Your task to perform on an android device: open device folders in google photos Image 0: 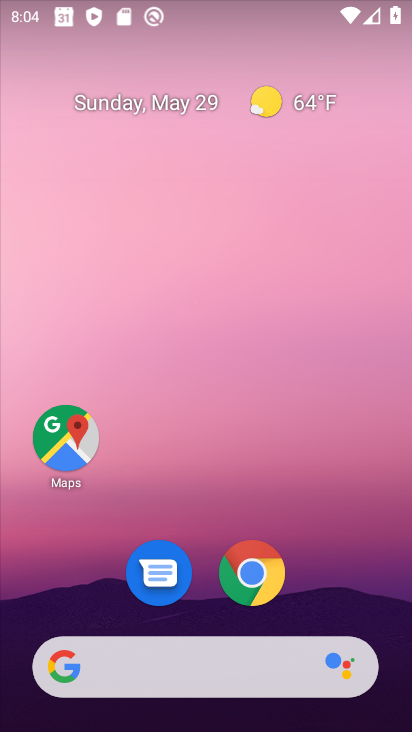
Step 0: drag from (92, 605) to (169, 233)
Your task to perform on an android device: open device folders in google photos Image 1: 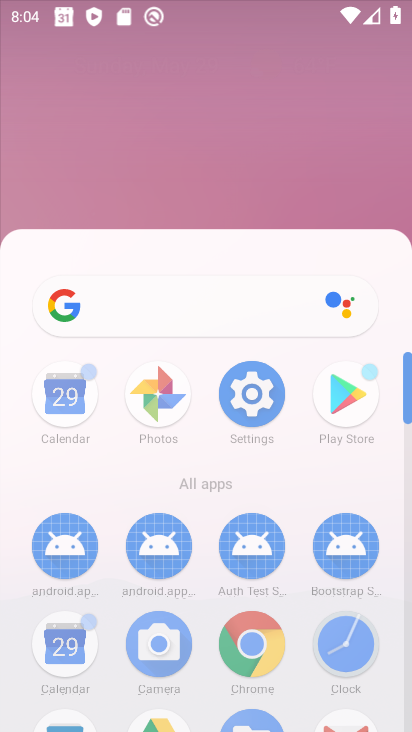
Step 1: click (161, 233)
Your task to perform on an android device: open device folders in google photos Image 2: 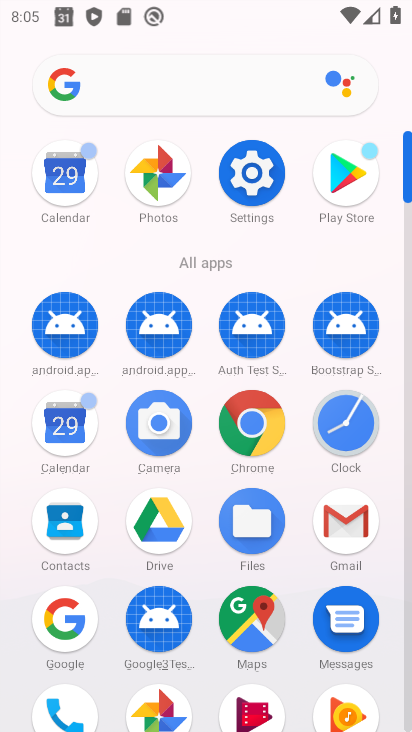
Step 2: drag from (198, 670) to (239, 441)
Your task to perform on an android device: open device folders in google photos Image 3: 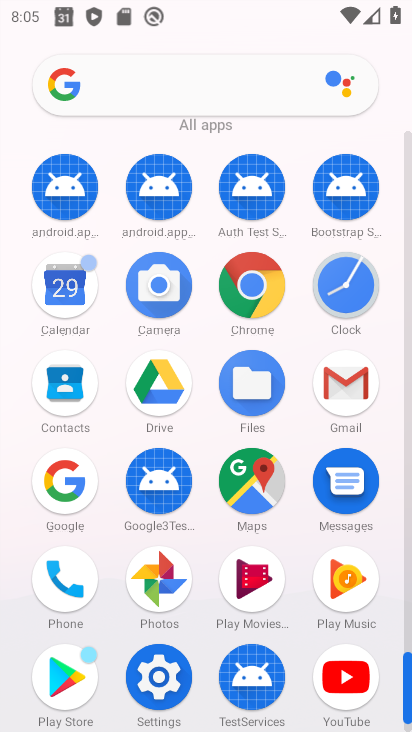
Step 3: click (166, 595)
Your task to perform on an android device: open device folders in google photos Image 4: 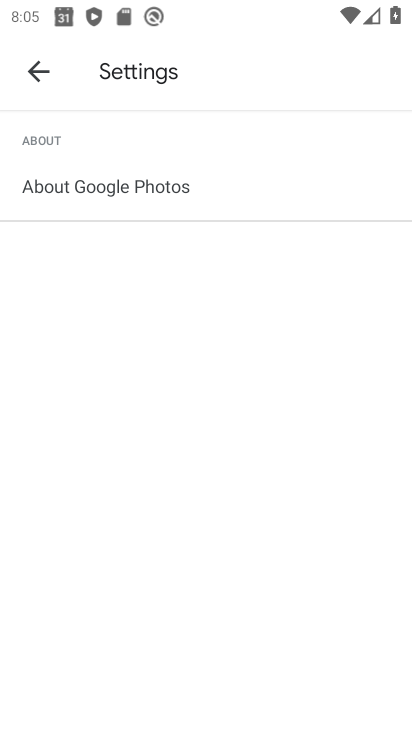
Step 4: click (45, 81)
Your task to perform on an android device: open device folders in google photos Image 5: 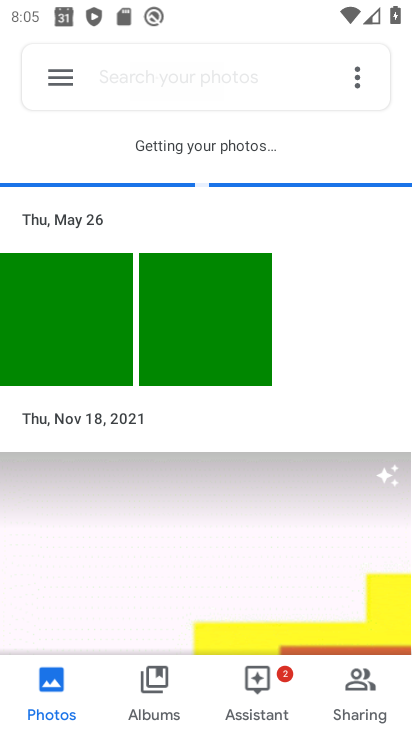
Step 5: click (57, 73)
Your task to perform on an android device: open device folders in google photos Image 6: 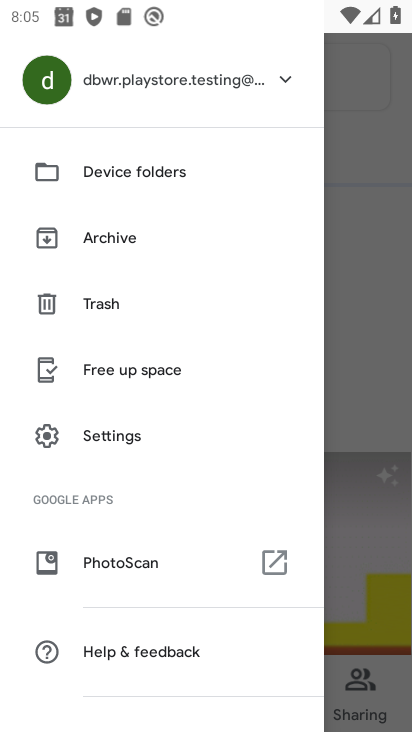
Step 6: click (131, 169)
Your task to perform on an android device: open device folders in google photos Image 7: 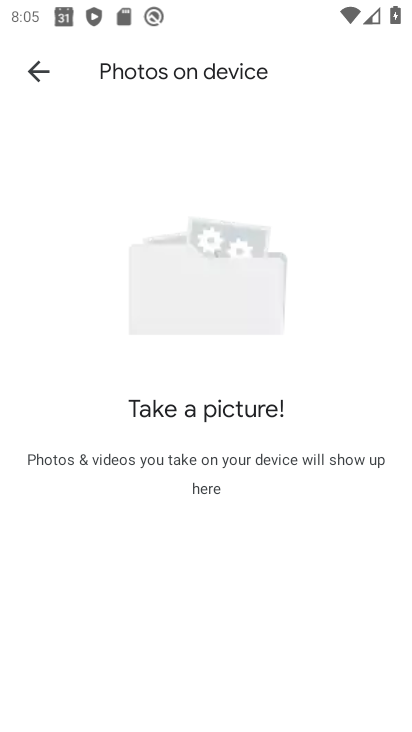
Step 7: task complete